Your task to perform on an android device: change the clock display to analog Image 0: 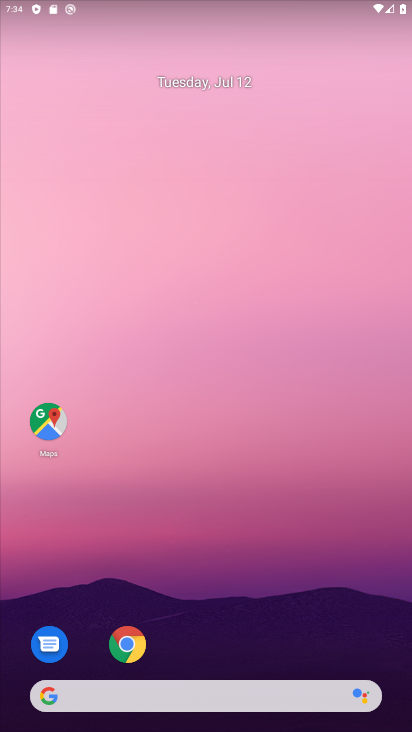
Step 0: click (252, 172)
Your task to perform on an android device: change the clock display to analog Image 1: 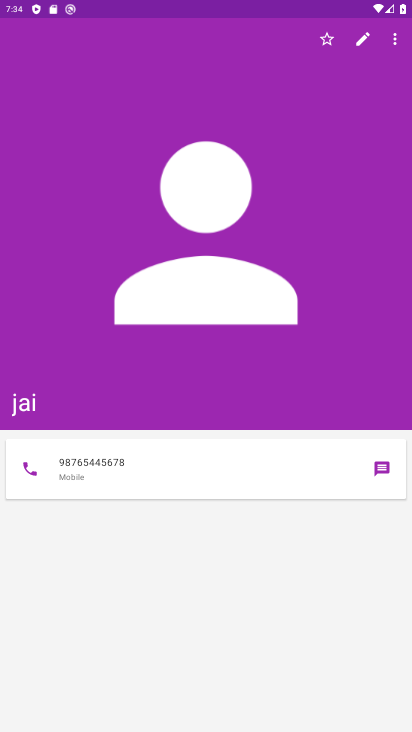
Step 1: press home button
Your task to perform on an android device: change the clock display to analog Image 2: 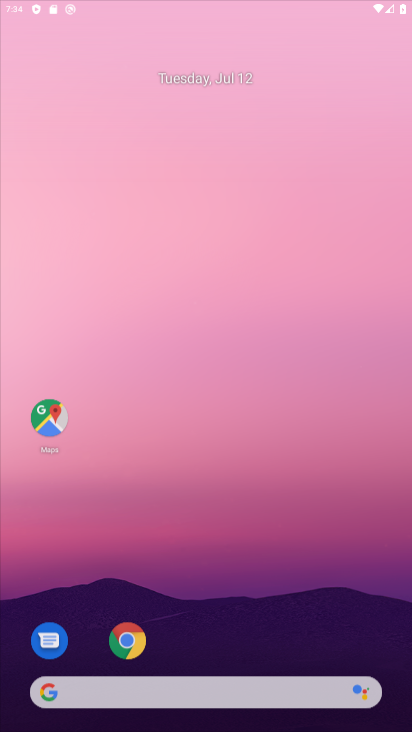
Step 2: drag from (213, 618) to (228, 29)
Your task to perform on an android device: change the clock display to analog Image 3: 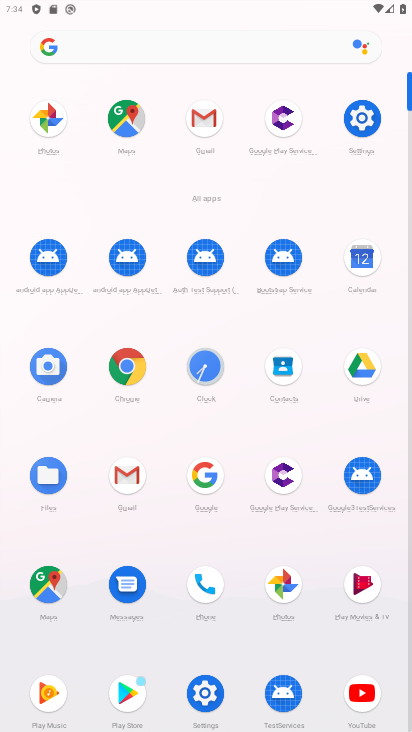
Step 3: click (209, 355)
Your task to perform on an android device: change the clock display to analog Image 4: 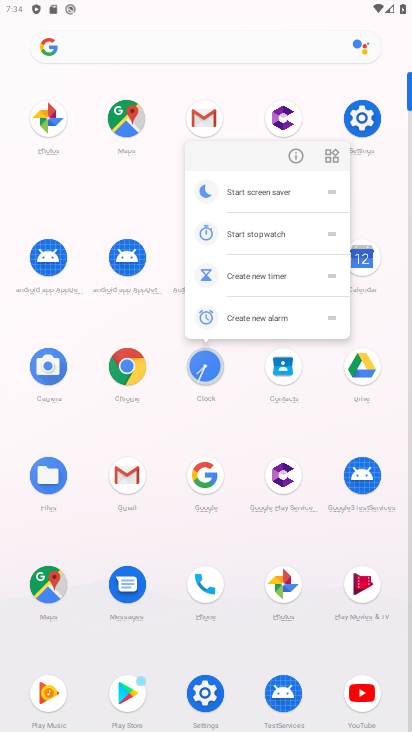
Step 4: click (291, 156)
Your task to perform on an android device: change the clock display to analog Image 5: 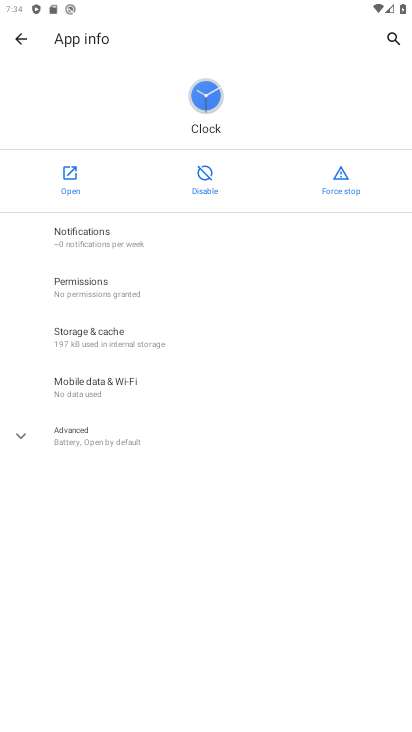
Step 5: click (66, 180)
Your task to perform on an android device: change the clock display to analog Image 6: 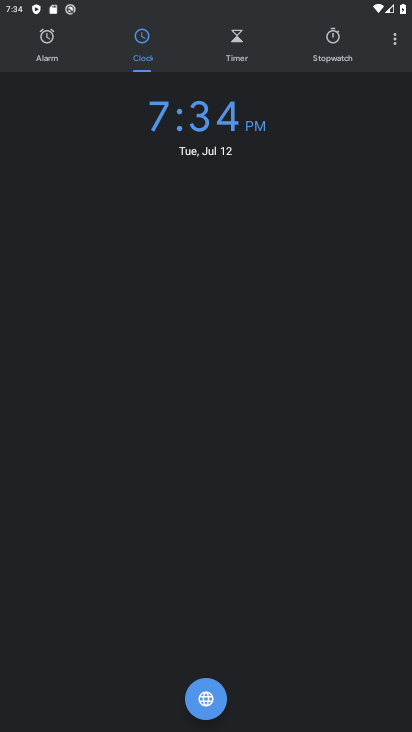
Step 6: click (391, 36)
Your task to perform on an android device: change the clock display to analog Image 7: 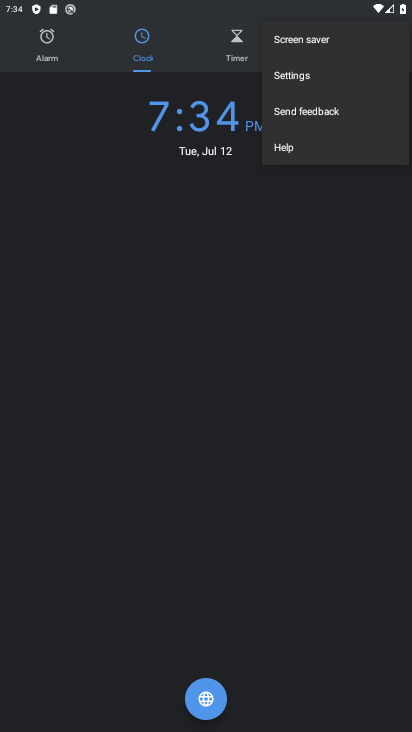
Step 7: click (292, 74)
Your task to perform on an android device: change the clock display to analog Image 8: 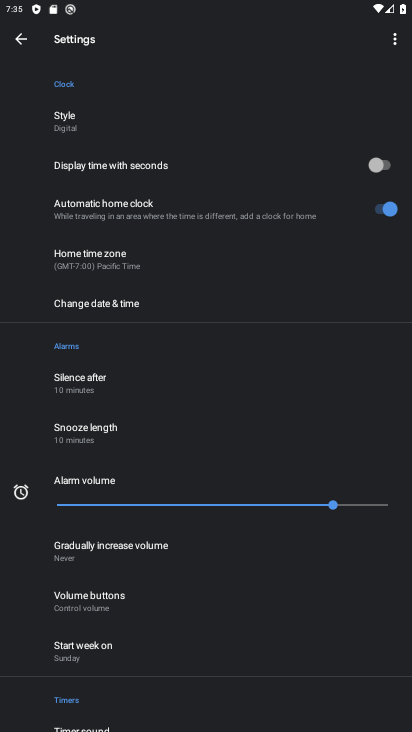
Step 8: click (90, 118)
Your task to perform on an android device: change the clock display to analog Image 9: 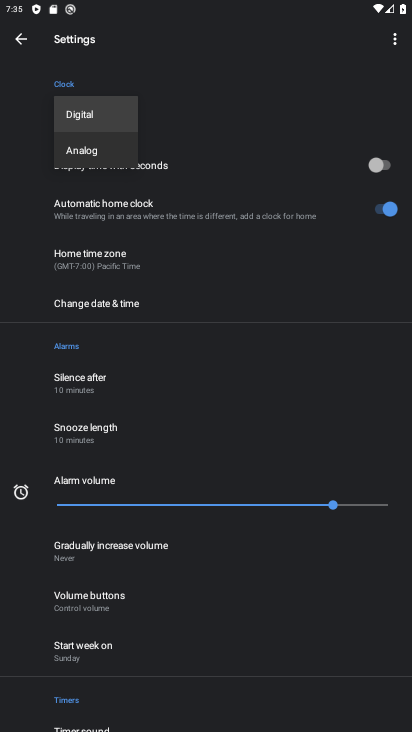
Step 9: click (84, 149)
Your task to perform on an android device: change the clock display to analog Image 10: 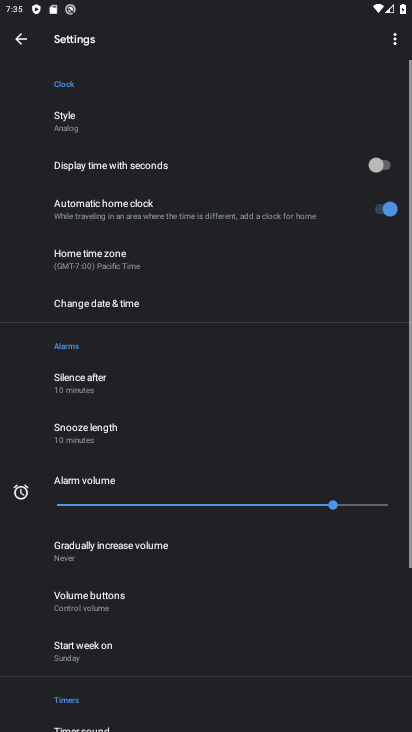
Step 10: task complete